Your task to perform on an android device: Open ESPN.com Image 0: 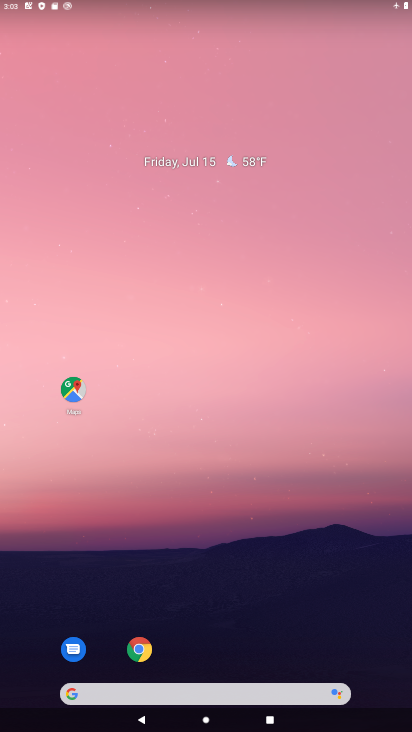
Step 0: click (142, 651)
Your task to perform on an android device: Open ESPN.com Image 1: 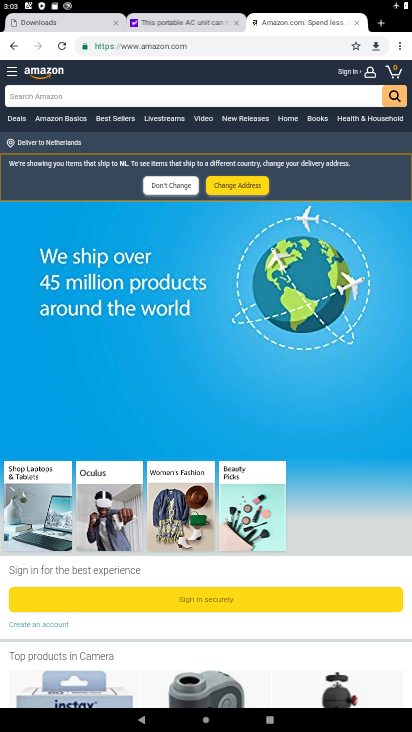
Step 1: click (400, 49)
Your task to perform on an android device: Open ESPN.com Image 2: 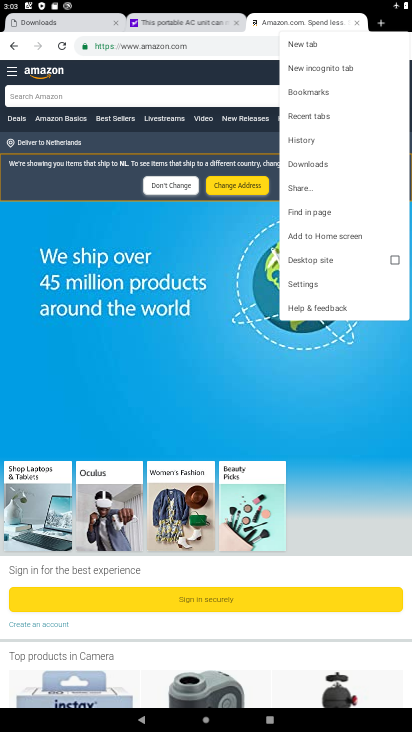
Step 2: click (302, 43)
Your task to perform on an android device: Open ESPN.com Image 3: 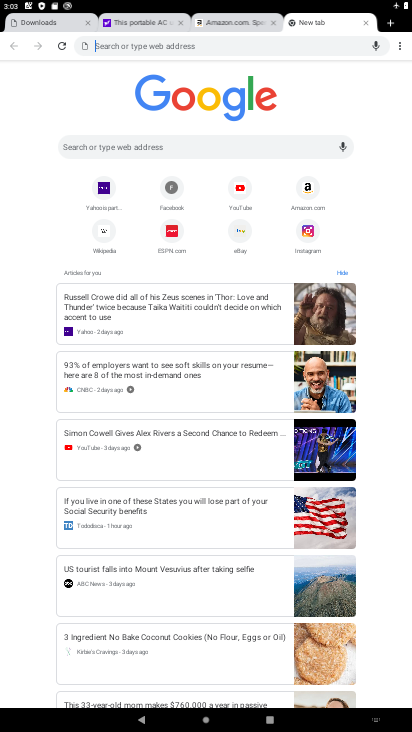
Step 3: click (177, 229)
Your task to perform on an android device: Open ESPN.com Image 4: 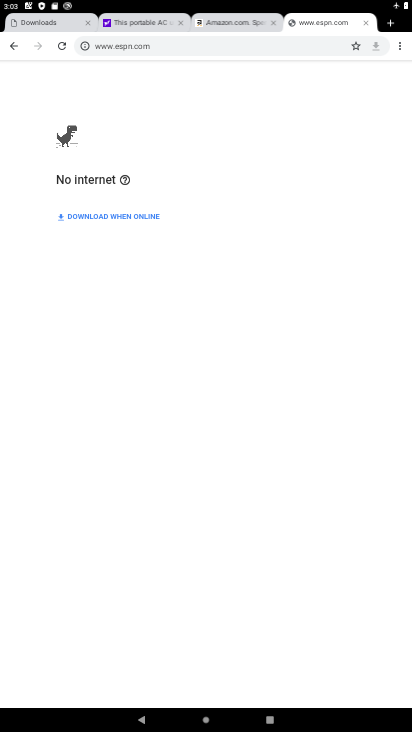
Step 4: task complete